Your task to perform on an android device: What's the weather? Image 0: 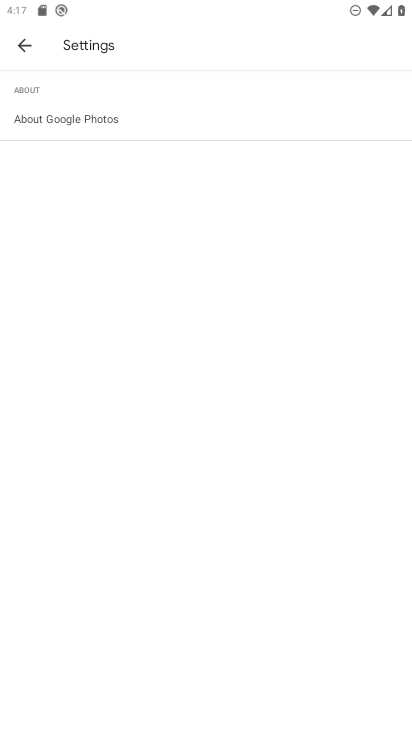
Step 0: press home button
Your task to perform on an android device: What's the weather? Image 1: 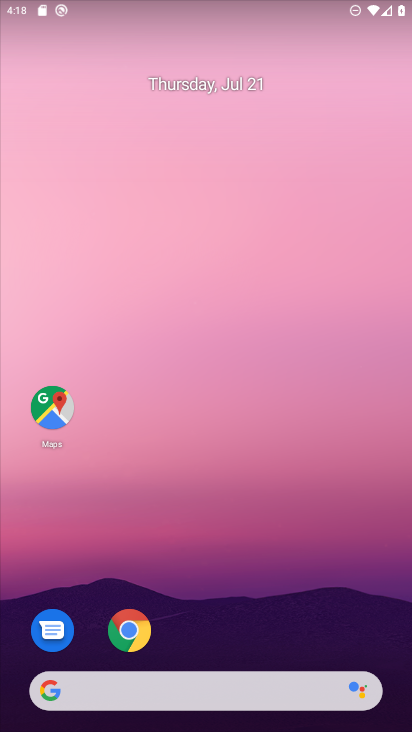
Step 1: click (82, 696)
Your task to perform on an android device: What's the weather? Image 2: 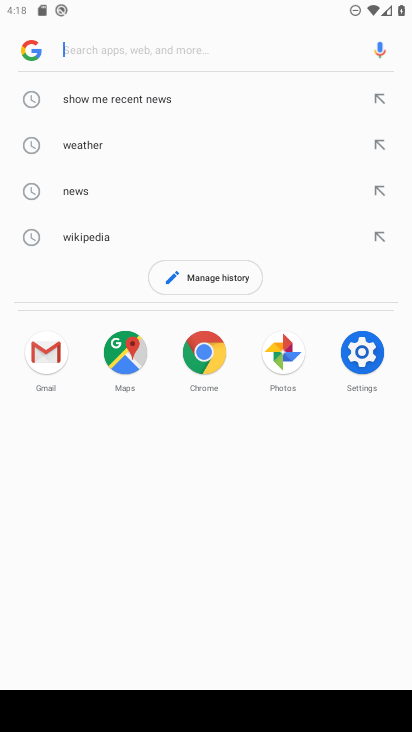
Step 2: click (81, 133)
Your task to perform on an android device: What's the weather? Image 3: 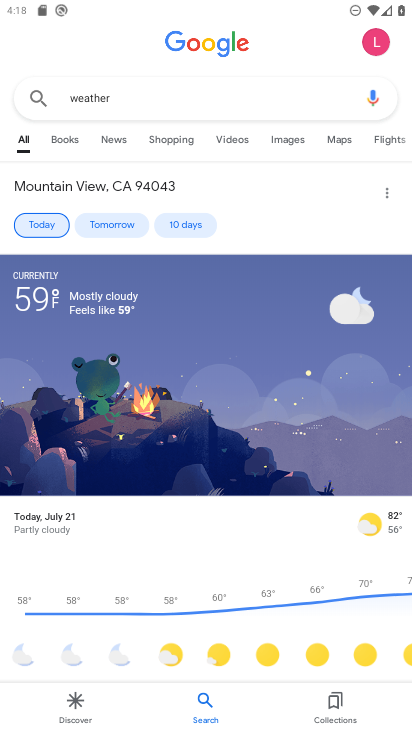
Step 3: task complete